Your task to perform on an android device: turn off airplane mode Image 0: 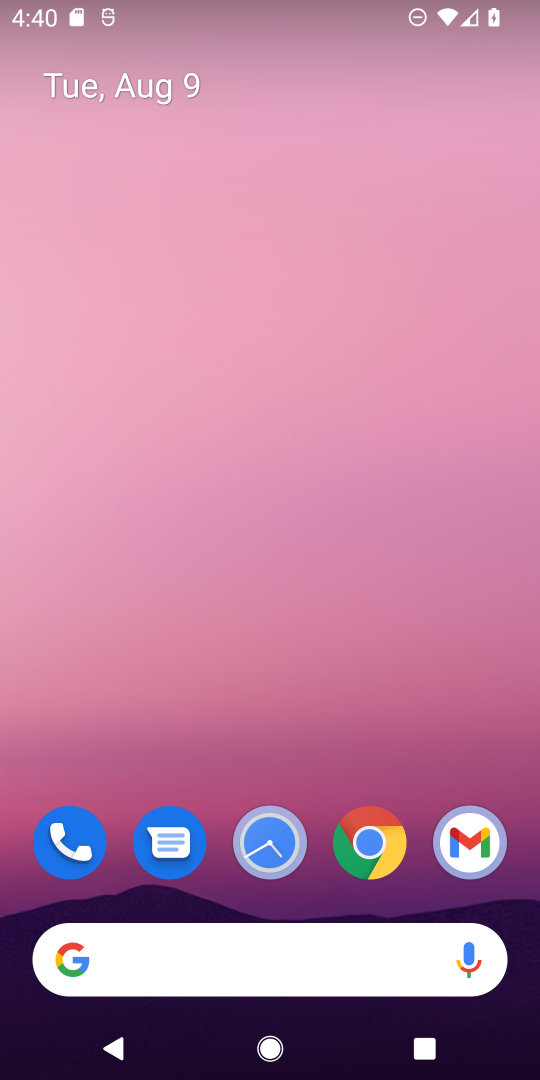
Step 0: drag from (378, 3) to (419, 396)
Your task to perform on an android device: turn off airplane mode Image 1: 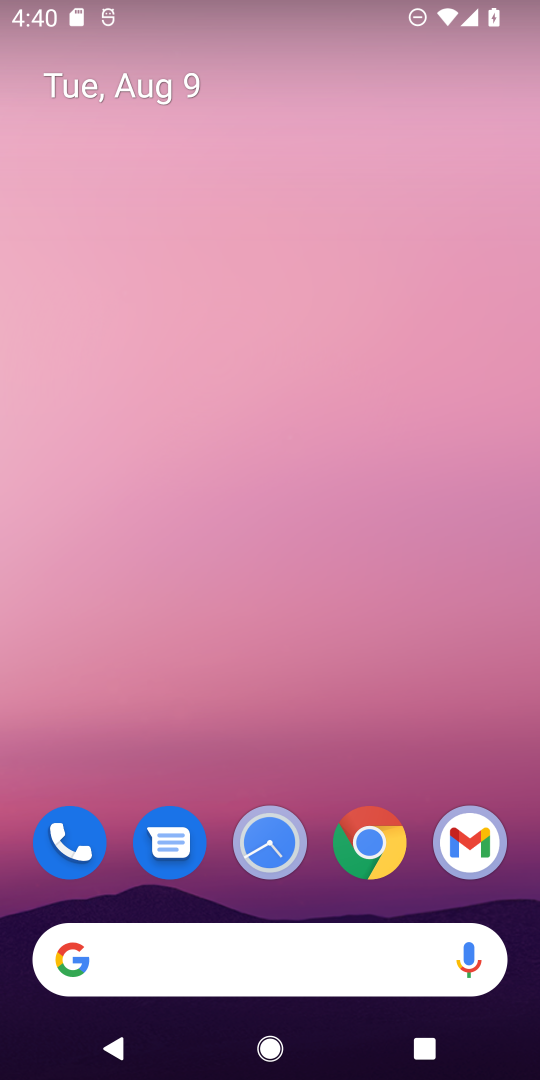
Step 1: drag from (271, 976) to (255, 37)
Your task to perform on an android device: turn off airplane mode Image 2: 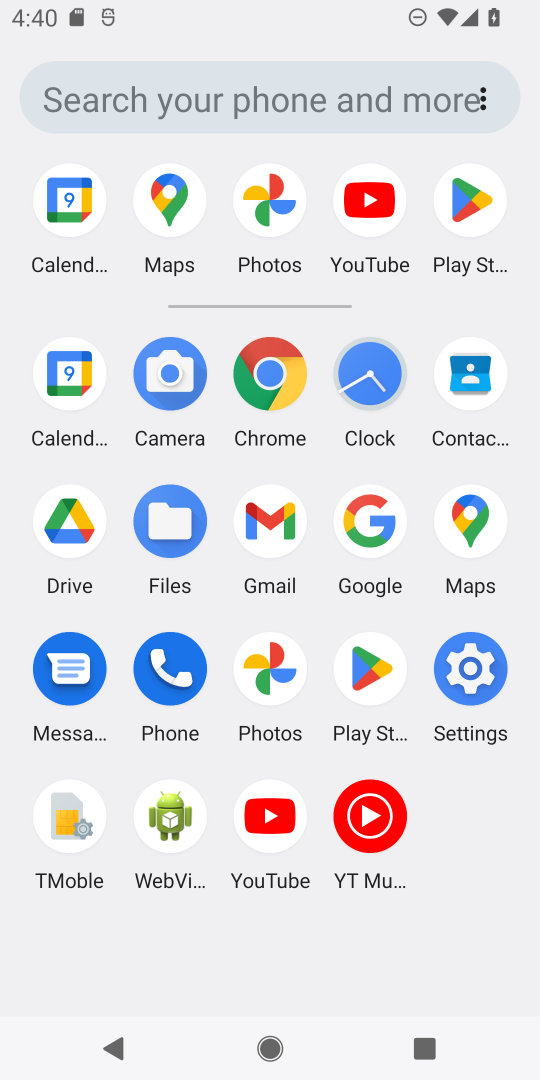
Step 2: click (488, 659)
Your task to perform on an android device: turn off airplane mode Image 3: 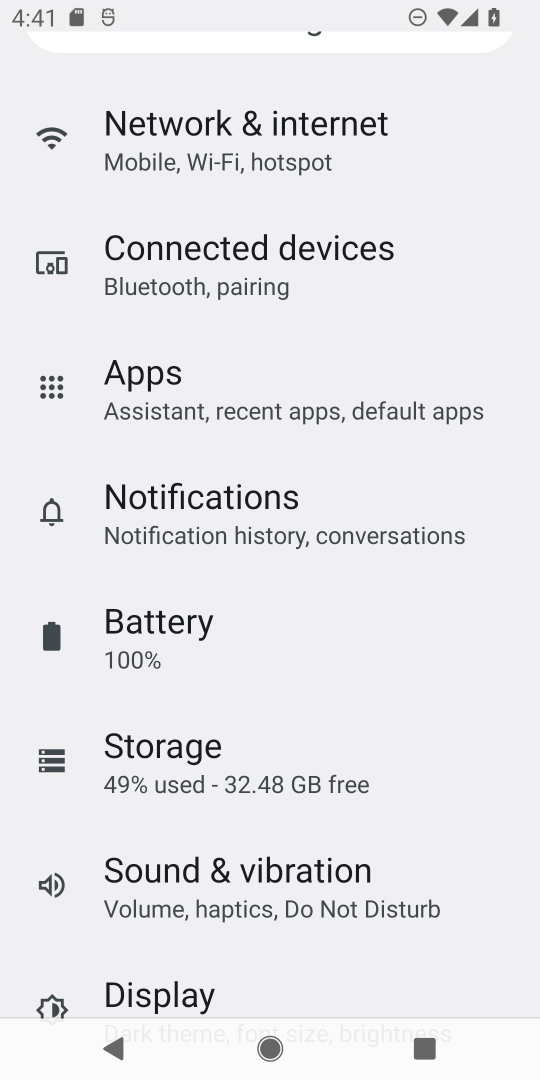
Step 3: drag from (478, 200) to (460, 514)
Your task to perform on an android device: turn off airplane mode Image 4: 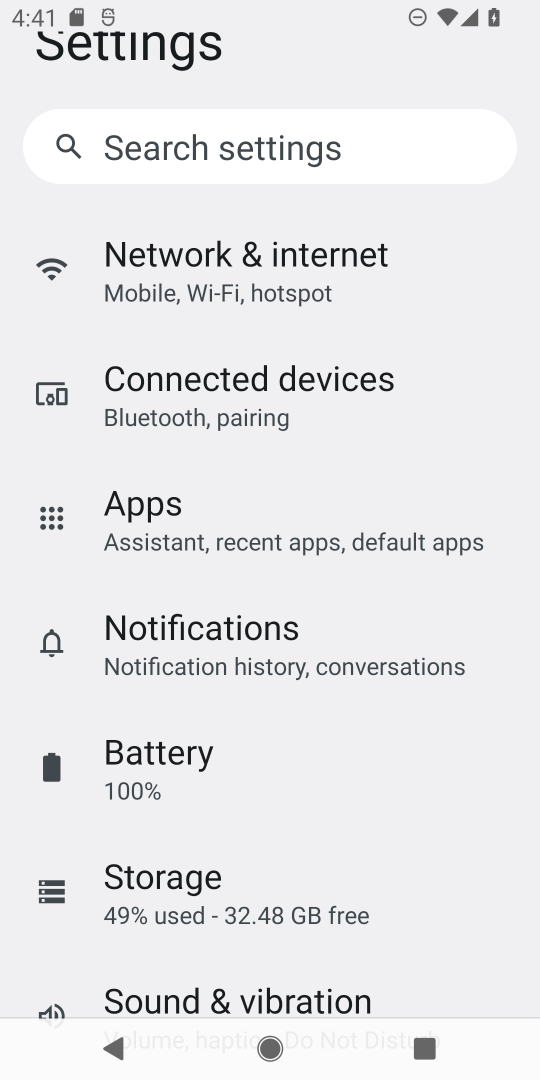
Step 4: click (368, 251)
Your task to perform on an android device: turn off airplane mode Image 5: 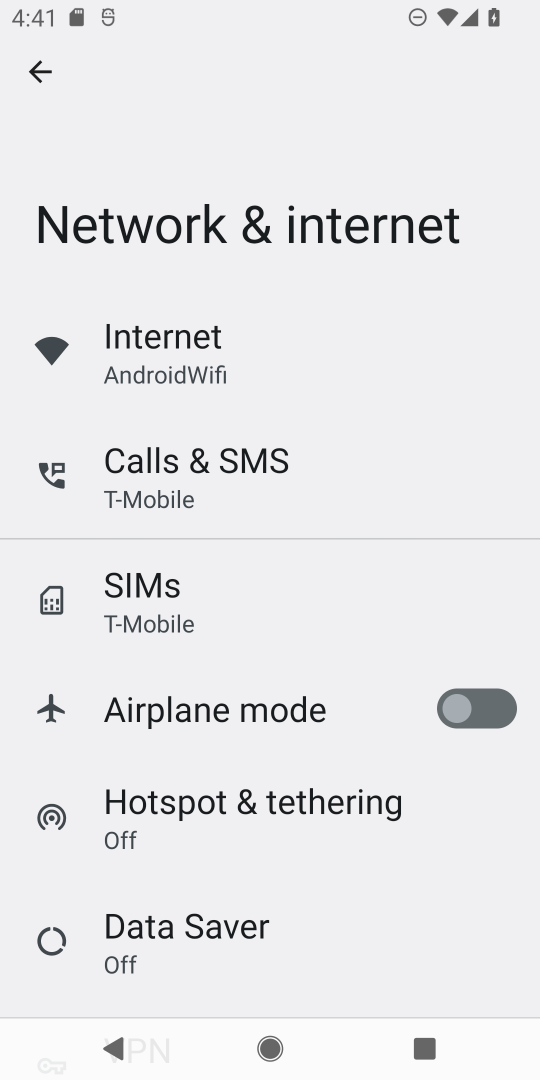
Step 5: task complete